Your task to perform on an android device: turn off notifications settings in the gmail app Image 0: 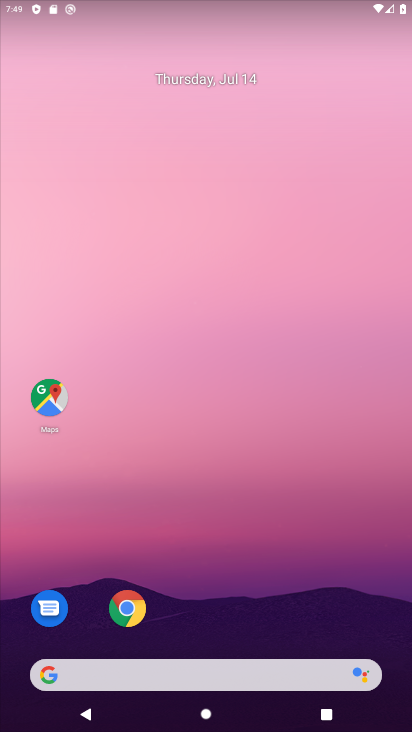
Step 0: drag from (209, 579) to (157, 34)
Your task to perform on an android device: turn off notifications settings in the gmail app Image 1: 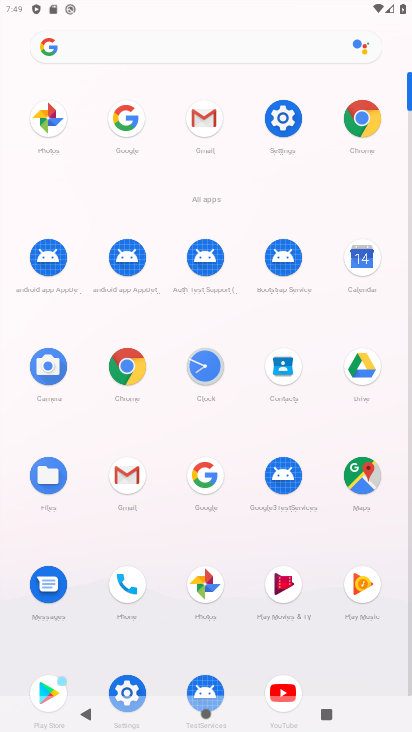
Step 1: click (201, 119)
Your task to perform on an android device: turn off notifications settings in the gmail app Image 2: 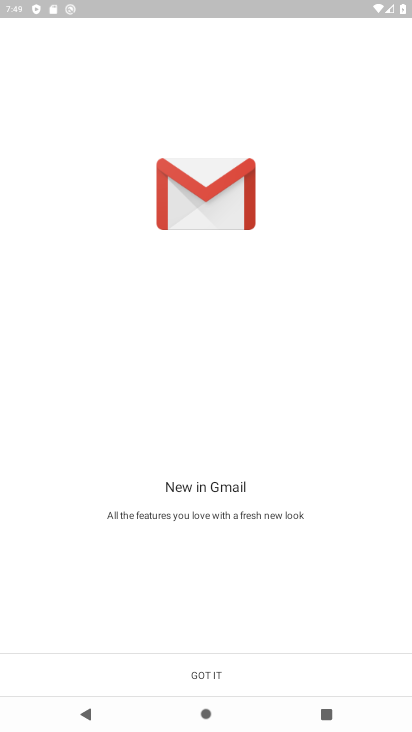
Step 2: click (200, 669)
Your task to perform on an android device: turn off notifications settings in the gmail app Image 3: 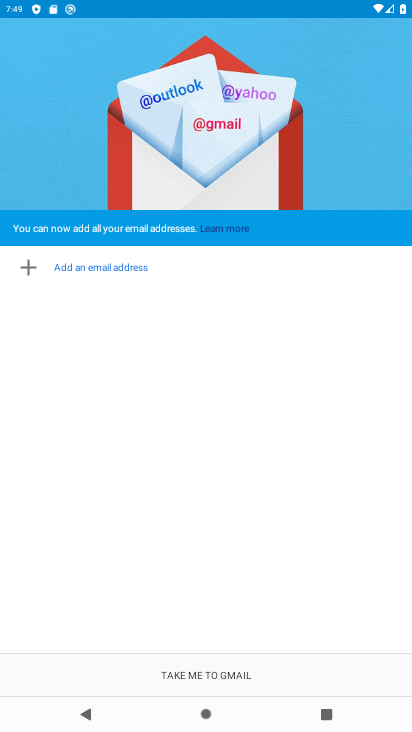
Step 3: click (159, 662)
Your task to perform on an android device: turn off notifications settings in the gmail app Image 4: 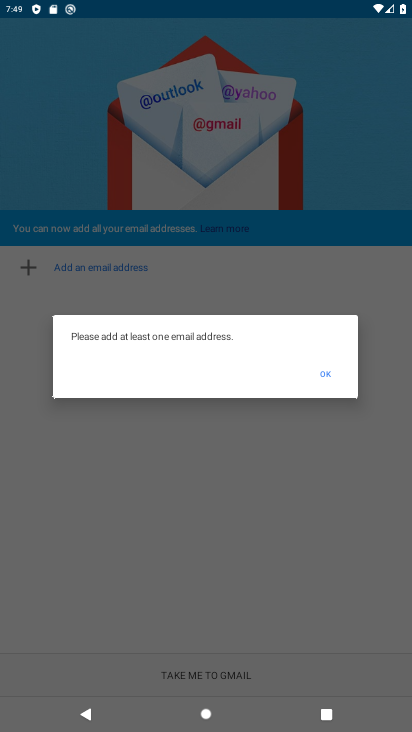
Step 4: click (323, 379)
Your task to perform on an android device: turn off notifications settings in the gmail app Image 5: 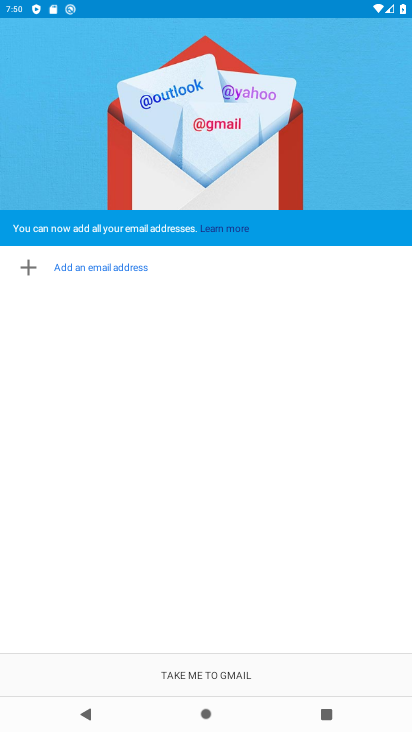
Step 5: task complete